Your task to perform on an android device: Search for dell alienware on amazon, select the first entry, add it to the cart, then select checkout. Image 0: 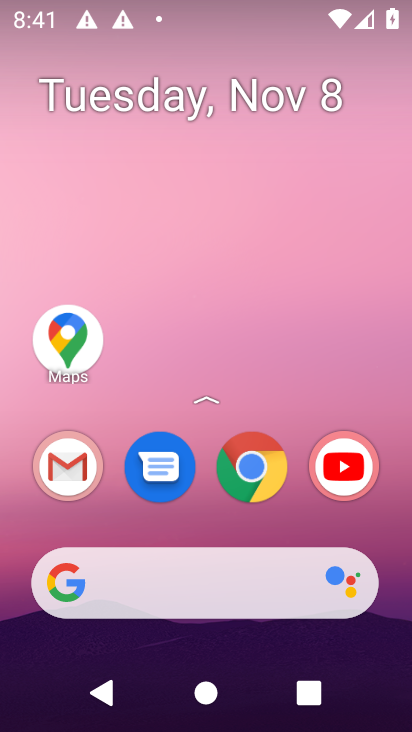
Step 0: click (243, 594)
Your task to perform on an android device: Search for dell alienware on amazon, select the first entry, add it to the cart, then select checkout. Image 1: 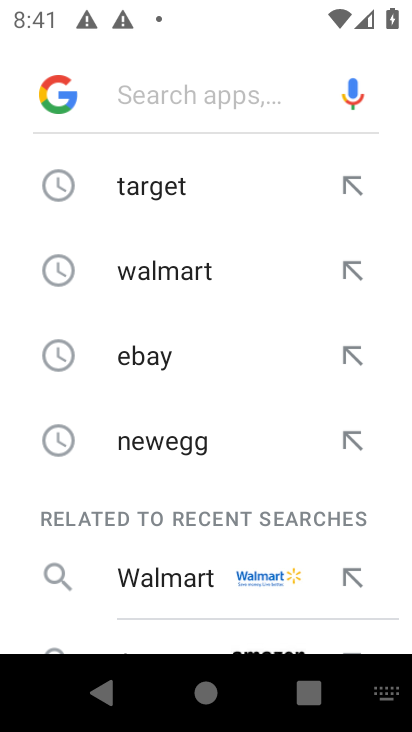
Step 1: type "amazon"
Your task to perform on an android device: Search for dell alienware on amazon, select the first entry, add it to the cart, then select checkout. Image 2: 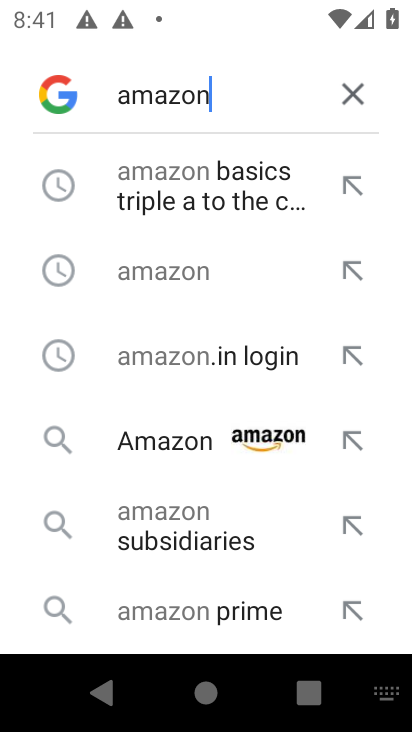
Step 2: click (199, 435)
Your task to perform on an android device: Search for dell alienware on amazon, select the first entry, add it to the cart, then select checkout. Image 3: 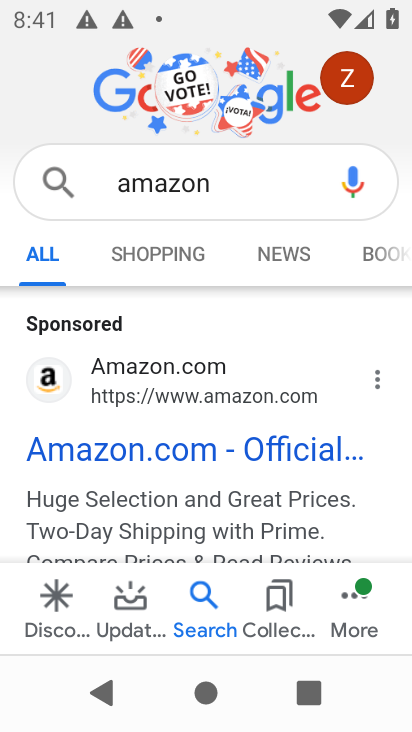
Step 3: click (164, 461)
Your task to perform on an android device: Search for dell alienware on amazon, select the first entry, add it to the cart, then select checkout. Image 4: 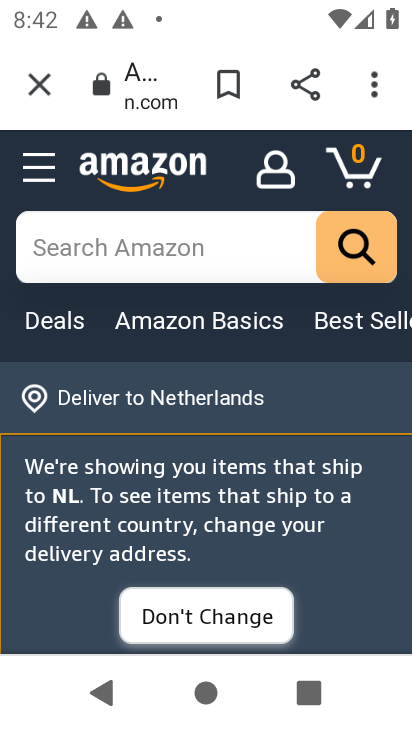
Step 4: click (145, 215)
Your task to perform on an android device: Search for dell alienware on amazon, select the first entry, add it to the cart, then select checkout. Image 5: 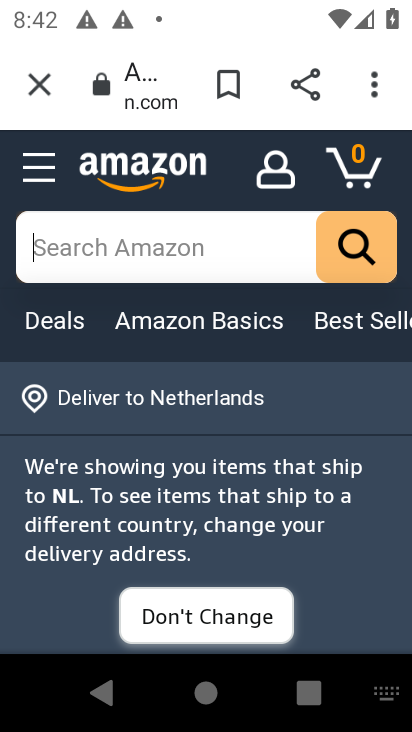
Step 5: type "alieanware"
Your task to perform on an android device: Search for dell alienware on amazon, select the first entry, add it to the cart, then select checkout. Image 6: 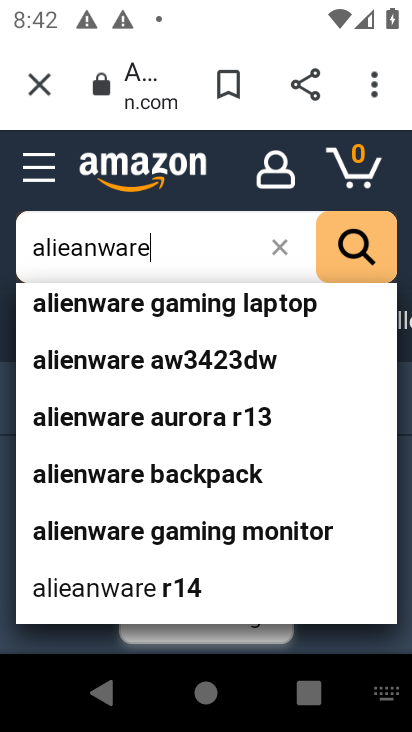
Step 6: click (283, 307)
Your task to perform on an android device: Search for dell alienware on amazon, select the first entry, add it to the cart, then select checkout. Image 7: 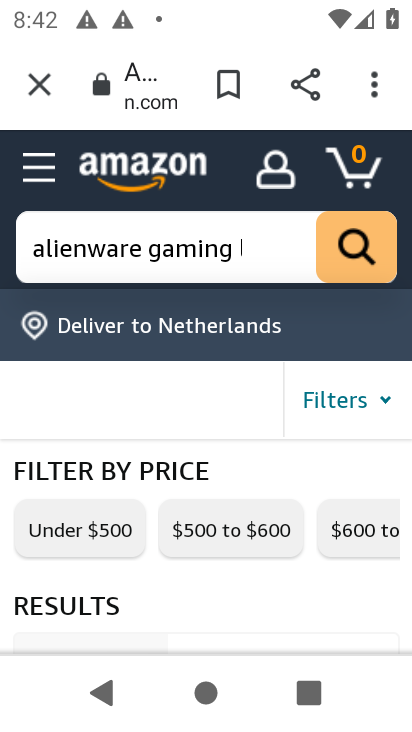
Step 7: task complete